Your task to perform on an android device: set the timer Image 0: 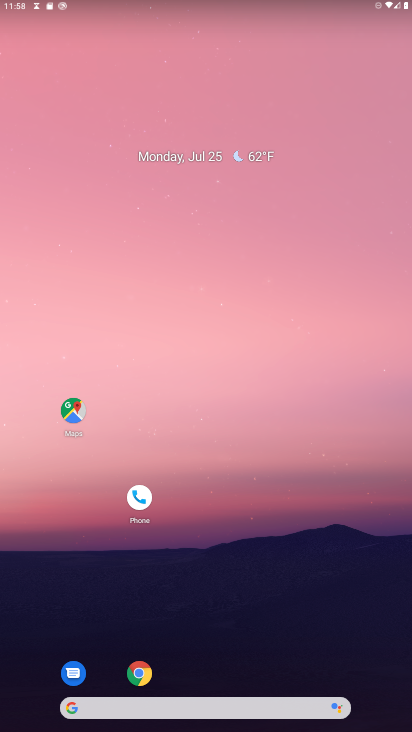
Step 0: press home button
Your task to perform on an android device: set the timer Image 1: 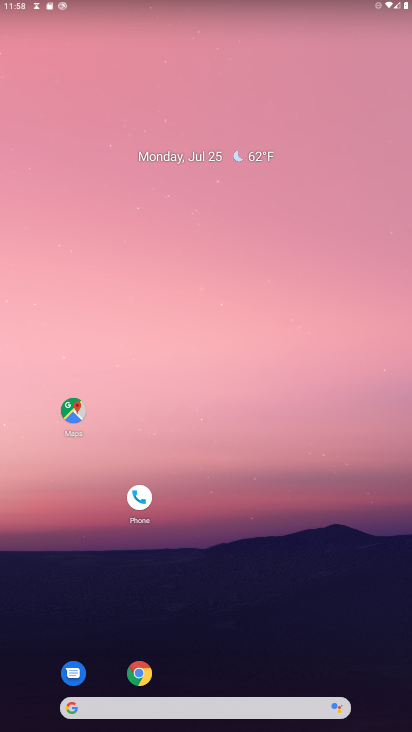
Step 1: drag from (241, 632) to (262, 169)
Your task to perform on an android device: set the timer Image 2: 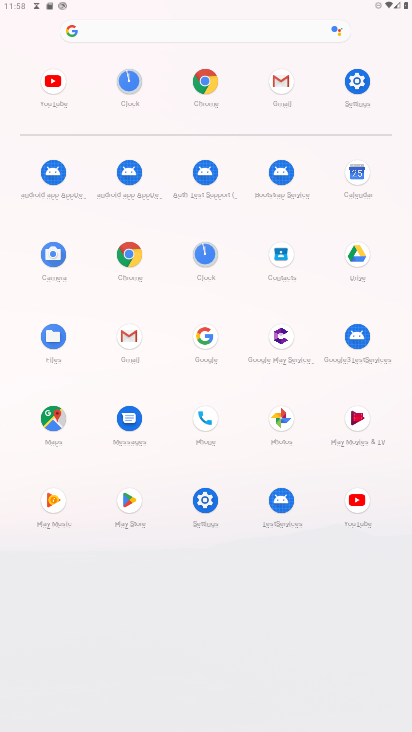
Step 2: click (210, 249)
Your task to perform on an android device: set the timer Image 3: 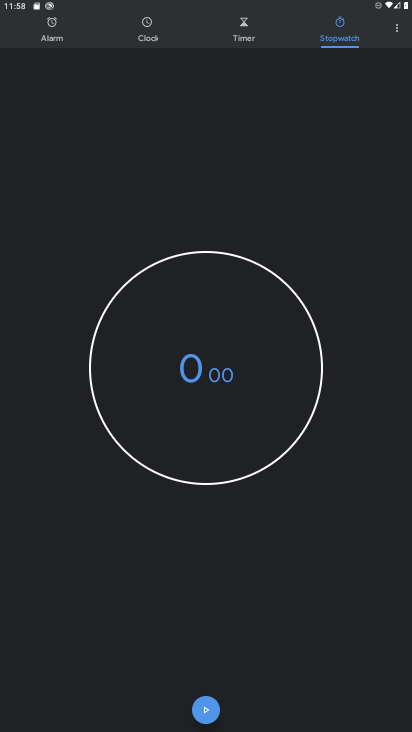
Step 3: click (246, 37)
Your task to perform on an android device: set the timer Image 4: 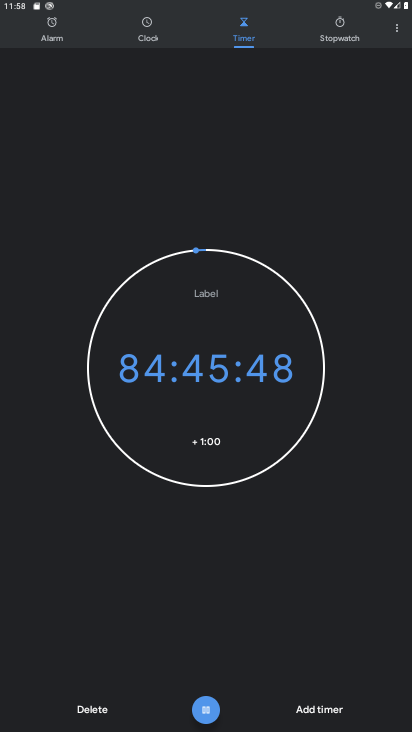
Step 4: click (87, 727)
Your task to perform on an android device: set the timer Image 5: 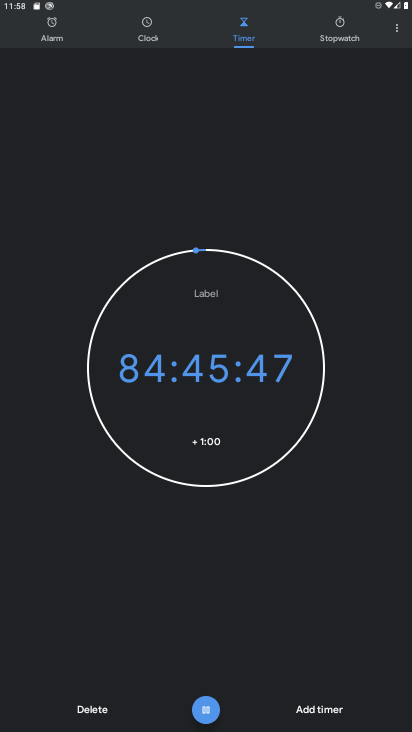
Step 5: click (95, 713)
Your task to perform on an android device: set the timer Image 6: 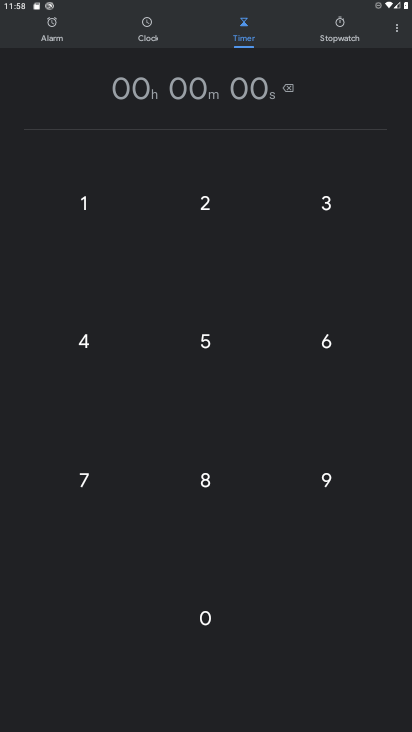
Step 6: click (205, 339)
Your task to perform on an android device: set the timer Image 7: 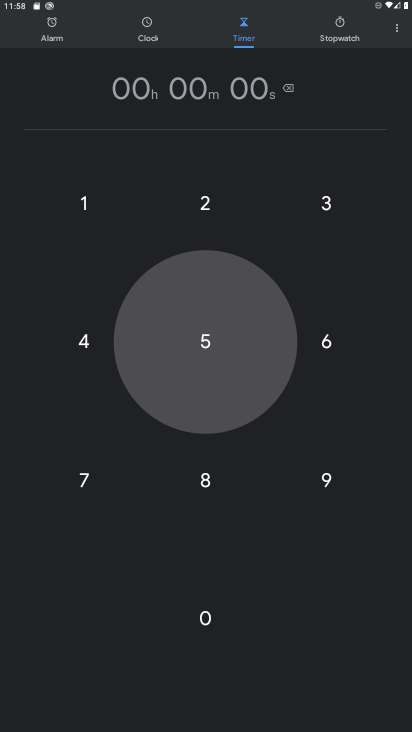
Step 7: click (205, 339)
Your task to perform on an android device: set the timer Image 8: 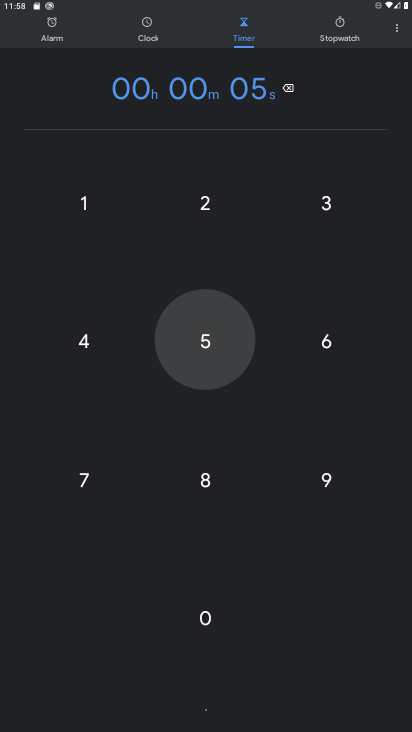
Step 8: click (205, 339)
Your task to perform on an android device: set the timer Image 9: 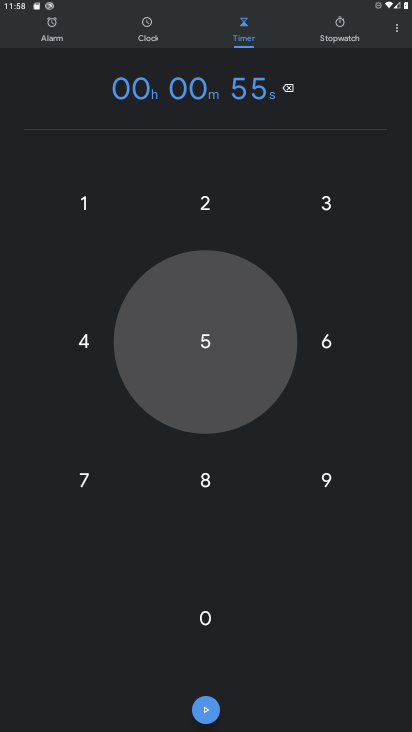
Step 9: click (205, 339)
Your task to perform on an android device: set the timer Image 10: 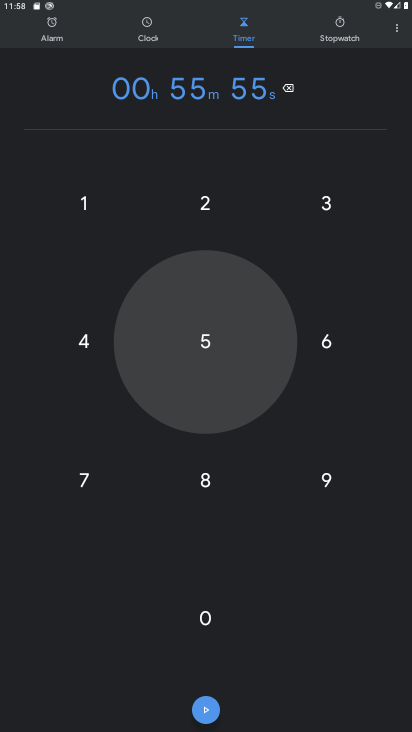
Step 10: click (205, 337)
Your task to perform on an android device: set the timer Image 11: 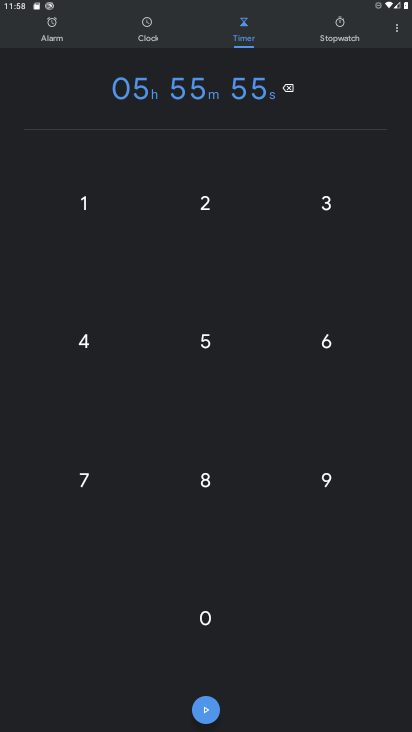
Step 11: click (199, 329)
Your task to perform on an android device: set the timer Image 12: 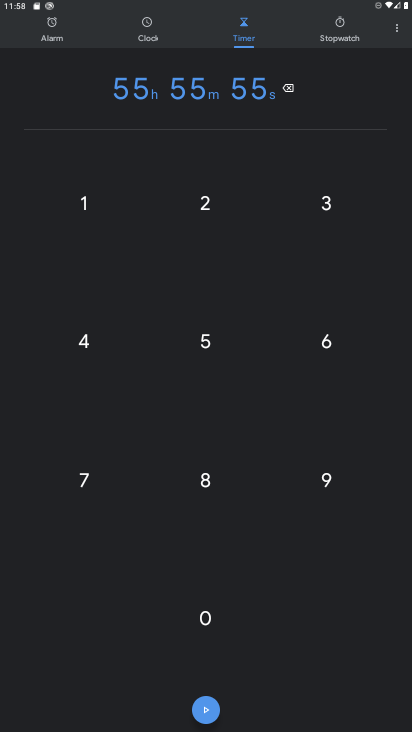
Step 12: click (200, 712)
Your task to perform on an android device: set the timer Image 13: 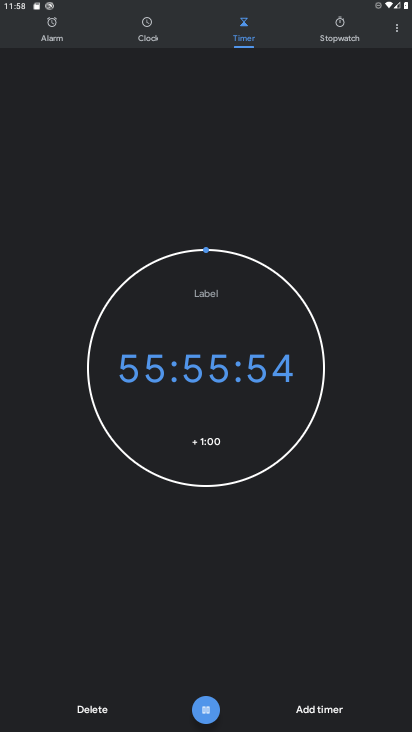
Step 13: task complete